Your task to perform on an android device: What's the weather going to be tomorrow? Image 0: 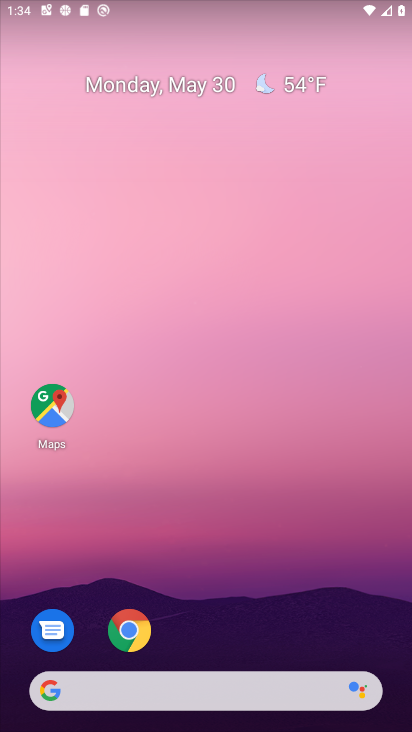
Step 0: press home button
Your task to perform on an android device: What's the weather going to be tomorrow? Image 1: 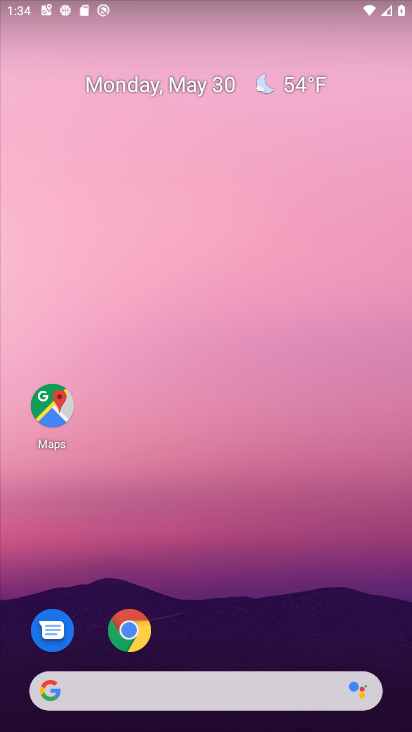
Step 1: click (299, 85)
Your task to perform on an android device: What's the weather going to be tomorrow? Image 2: 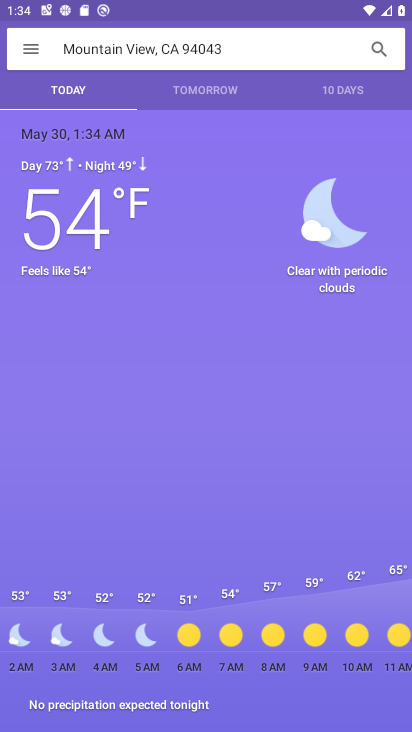
Step 2: drag from (196, 588) to (337, 191)
Your task to perform on an android device: What's the weather going to be tomorrow? Image 3: 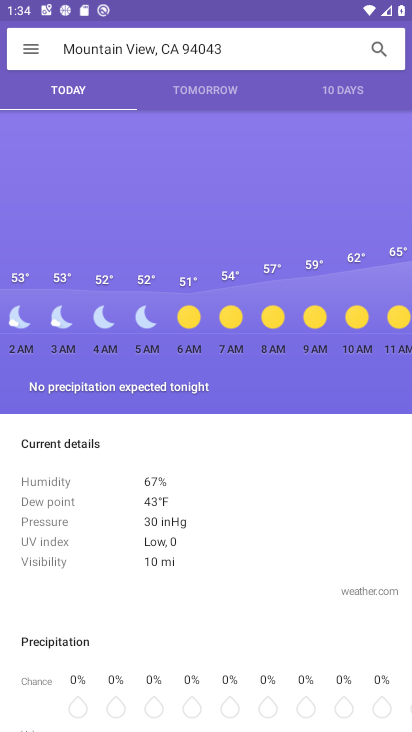
Step 3: drag from (264, 158) to (208, 653)
Your task to perform on an android device: What's the weather going to be tomorrow? Image 4: 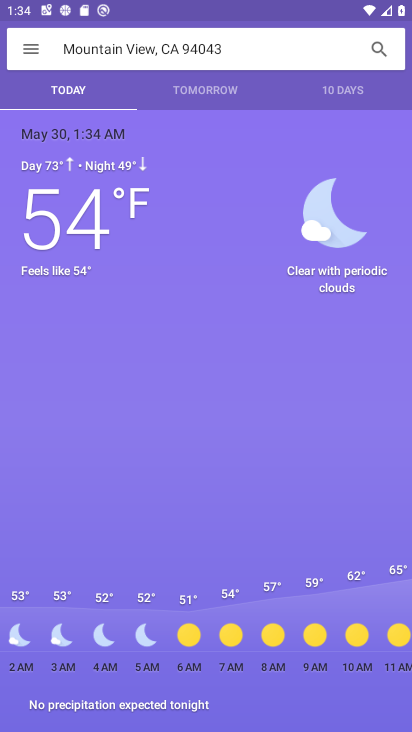
Step 4: click (217, 92)
Your task to perform on an android device: What's the weather going to be tomorrow? Image 5: 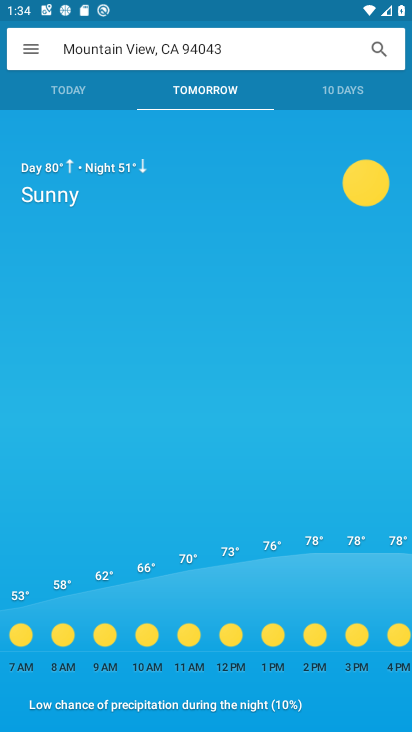
Step 5: task complete